Your task to perform on an android device: open a bookmark in the chrome app Image 0: 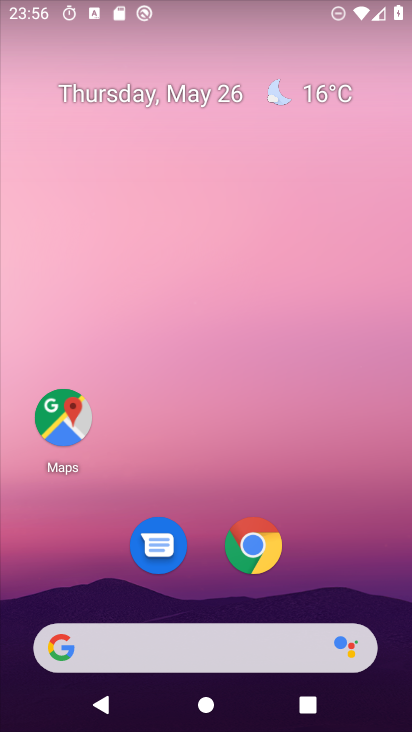
Step 0: press home button
Your task to perform on an android device: open a bookmark in the chrome app Image 1: 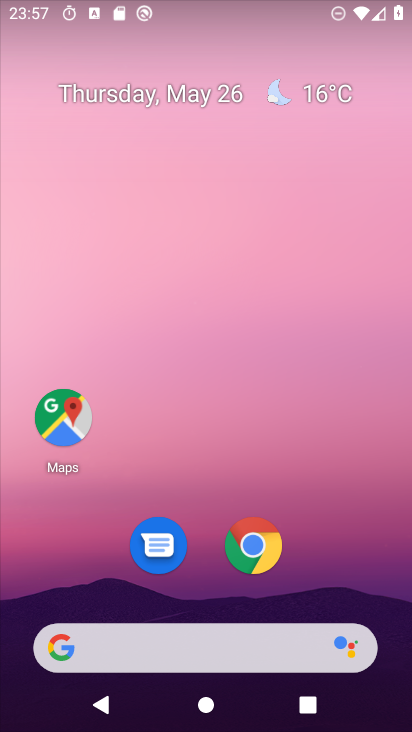
Step 1: click (249, 544)
Your task to perform on an android device: open a bookmark in the chrome app Image 2: 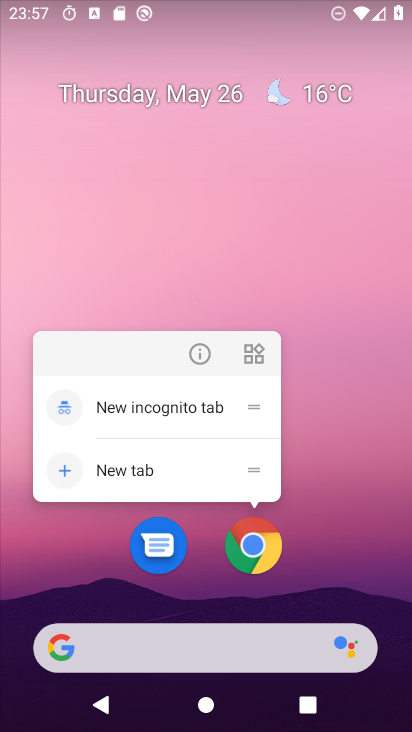
Step 2: click (249, 544)
Your task to perform on an android device: open a bookmark in the chrome app Image 3: 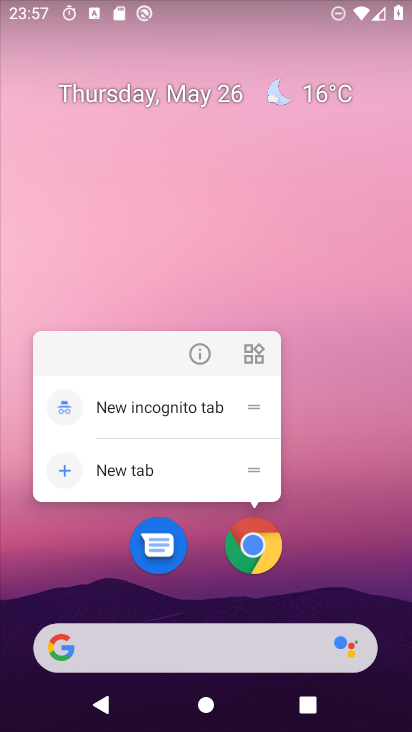
Step 3: click (309, 587)
Your task to perform on an android device: open a bookmark in the chrome app Image 4: 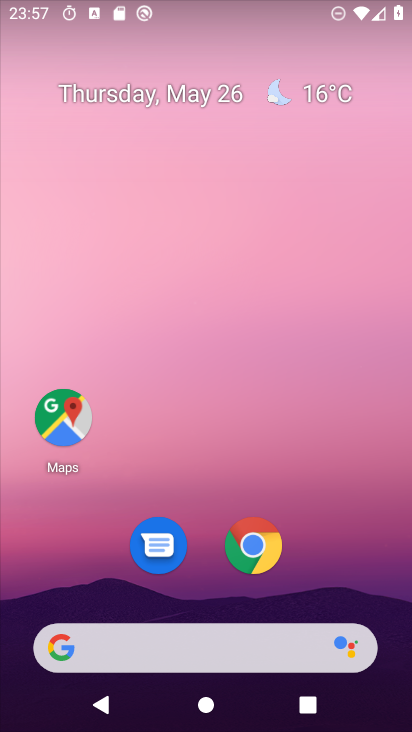
Step 4: drag from (322, 601) to (233, 91)
Your task to perform on an android device: open a bookmark in the chrome app Image 5: 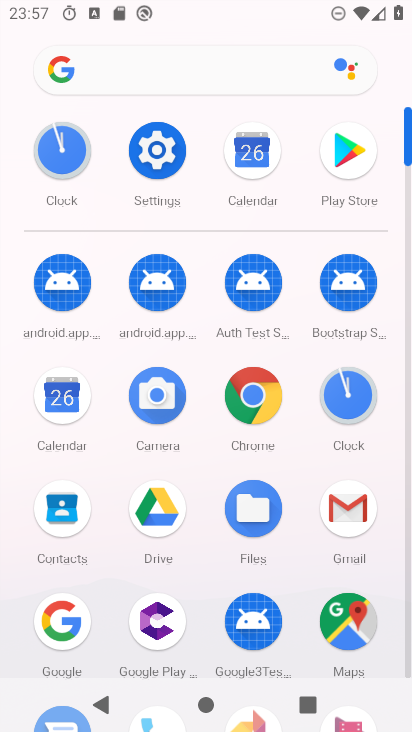
Step 5: click (253, 396)
Your task to perform on an android device: open a bookmark in the chrome app Image 6: 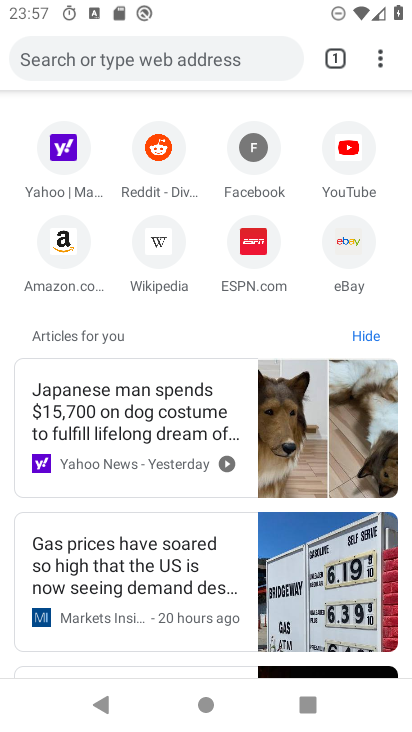
Step 6: drag from (383, 60) to (191, 235)
Your task to perform on an android device: open a bookmark in the chrome app Image 7: 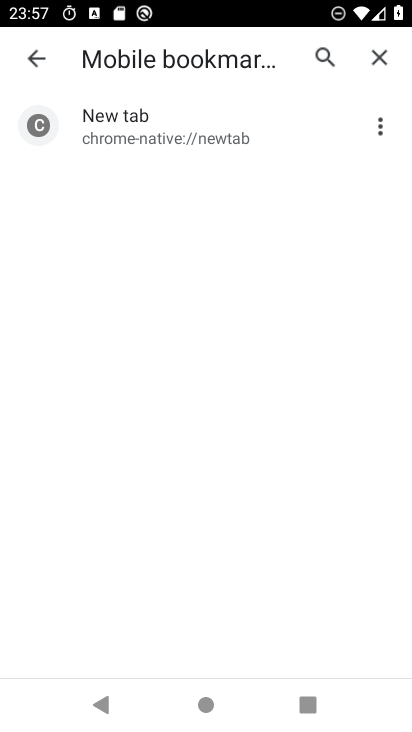
Step 7: click (107, 114)
Your task to perform on an android device: open a bookmark in the chrome app Image 8: 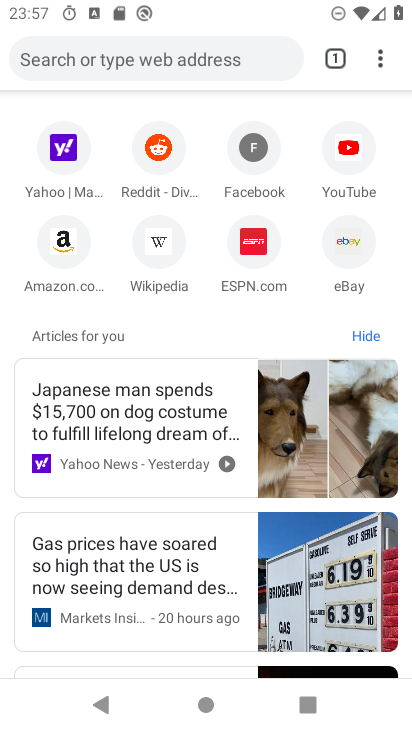
Step 8: task complete